Your task to perform on an android device: open app "McDonald's" (install if not already installed) Image 0: 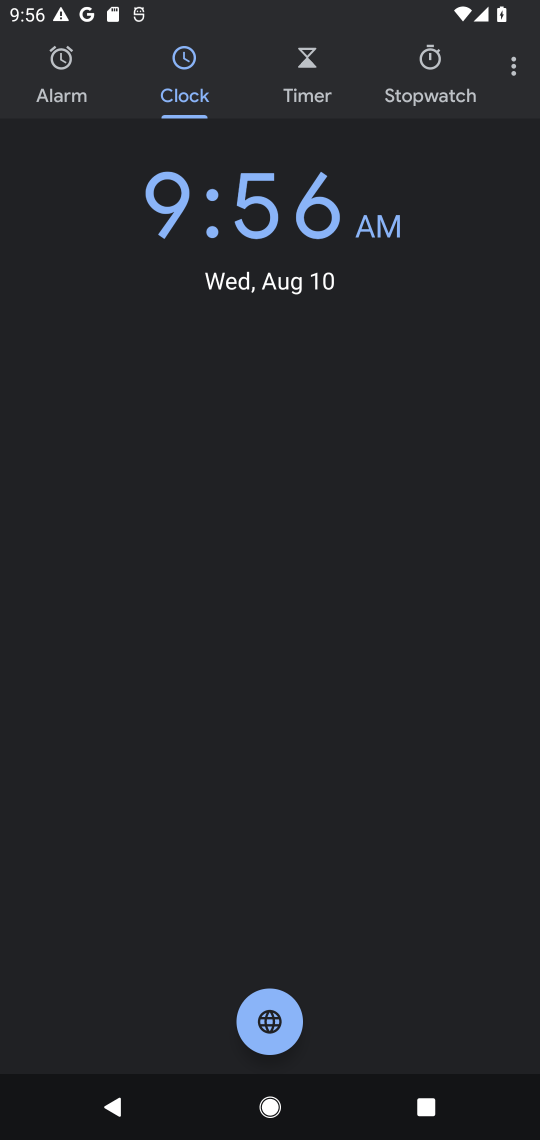
Step 0: press home button
Your task to perform on an android device: open app "McDonald's" (install if not already installed) Image 1: 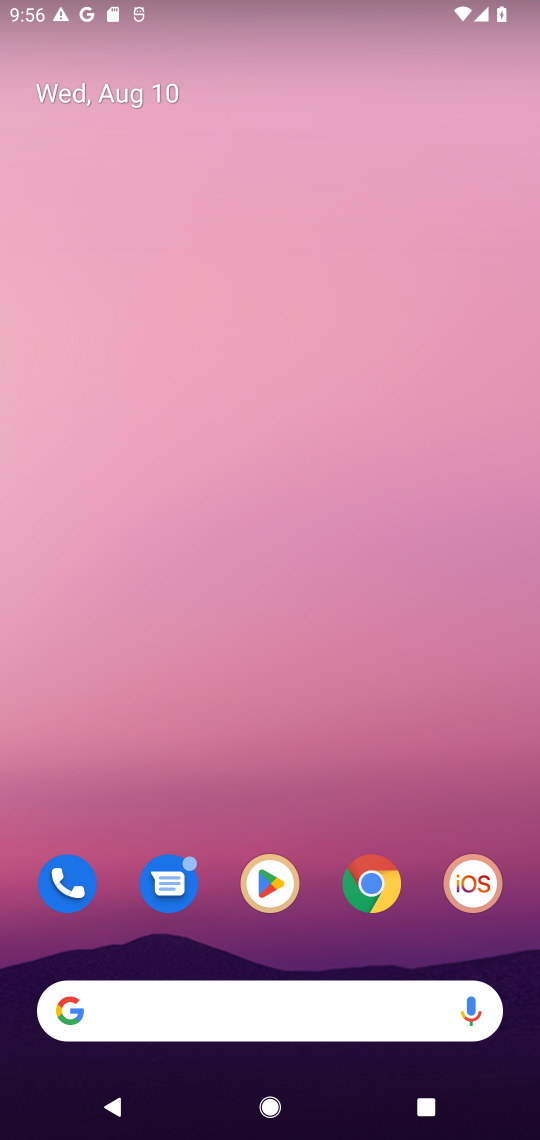
Step 1: drag from (444, 601) to (448, 57)
Your task to perform on an android device: open app "McDonald's" (install if not already installed) Image 2: 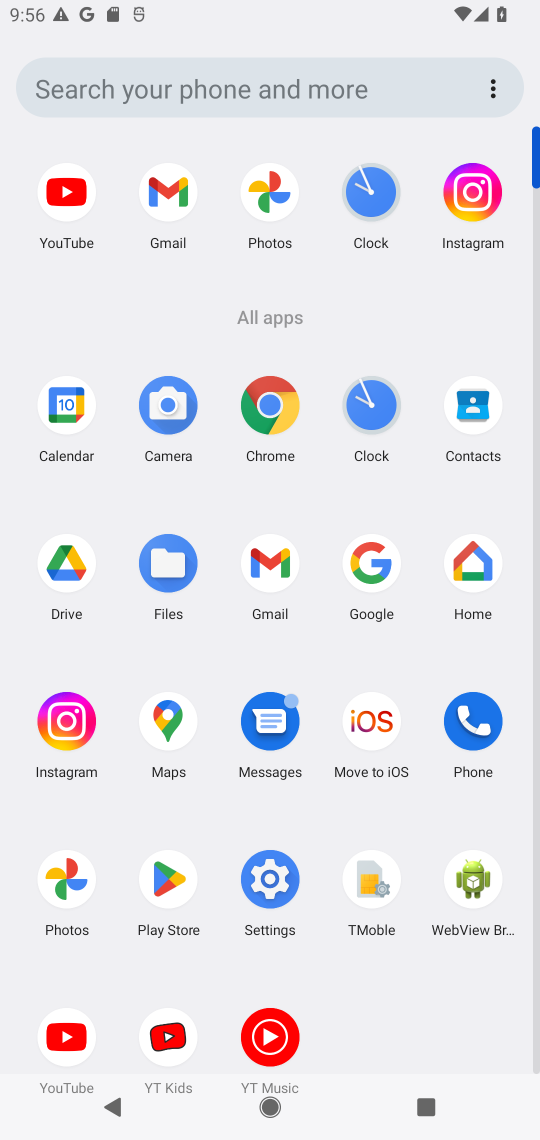
Step 2: click (161, 880)
Your task to perform on an android device: open app "McDonald's" (install if not already installed) Image 3: 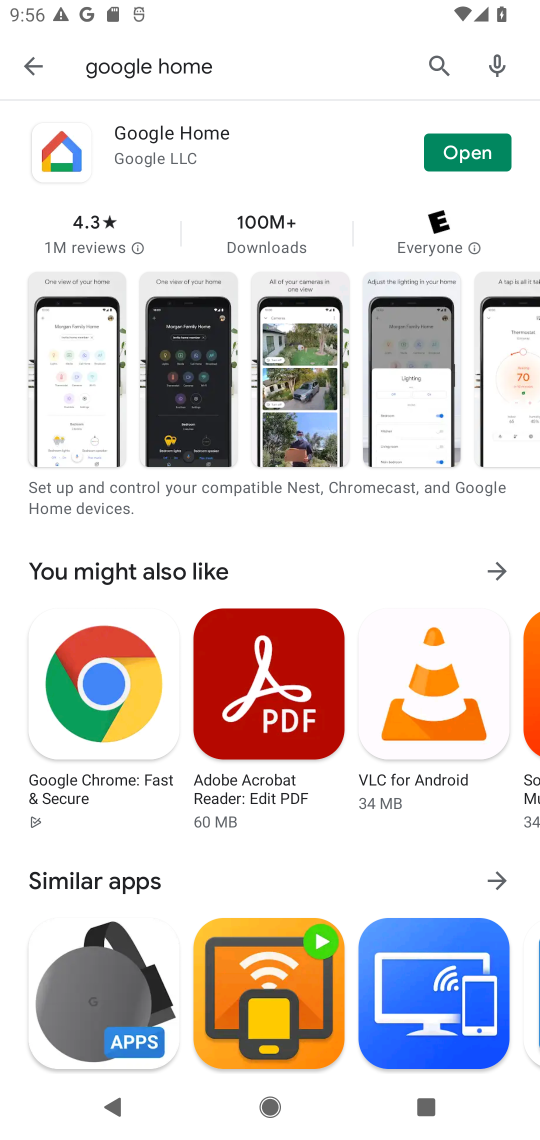
Step 3: click (436, 60)
Your task to perform on an android device: open app "McDonald's" (install if not already installed) Image 4: 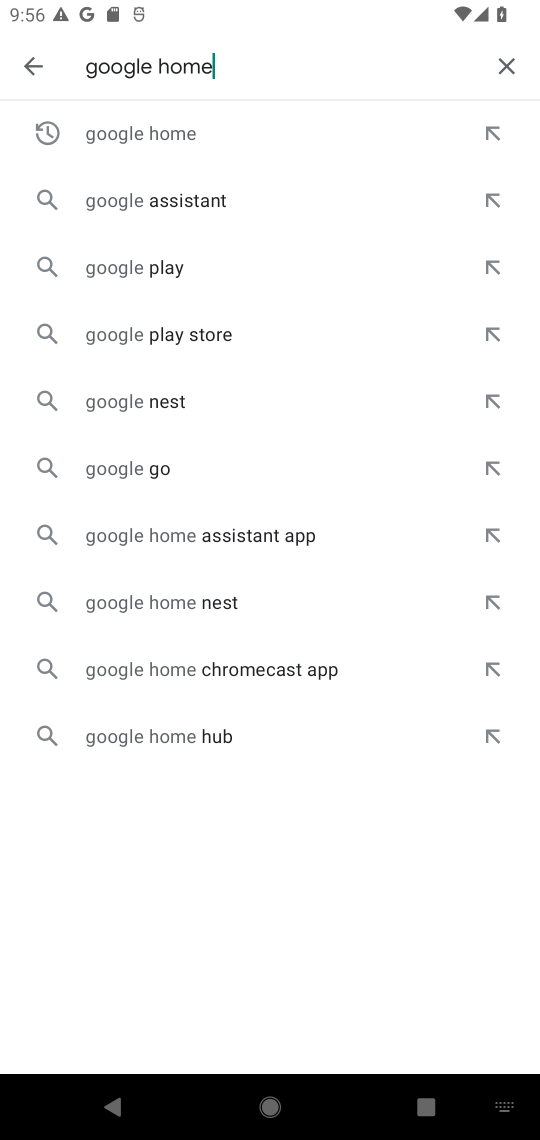
Step 4: click (512, 55)
Your task to perform on an android device: open app "McDonald's" (install if not already installed) Image 5: 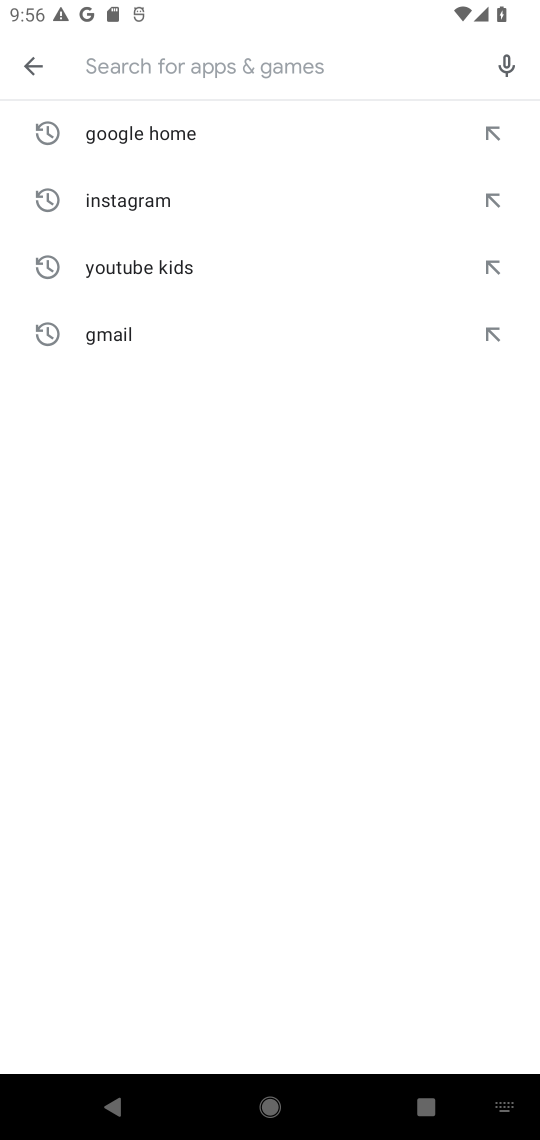
Step 5: type "mcdonalds"
Your task to perform on an android device: open app "McDonald's" (install if not already installed) Image 6: 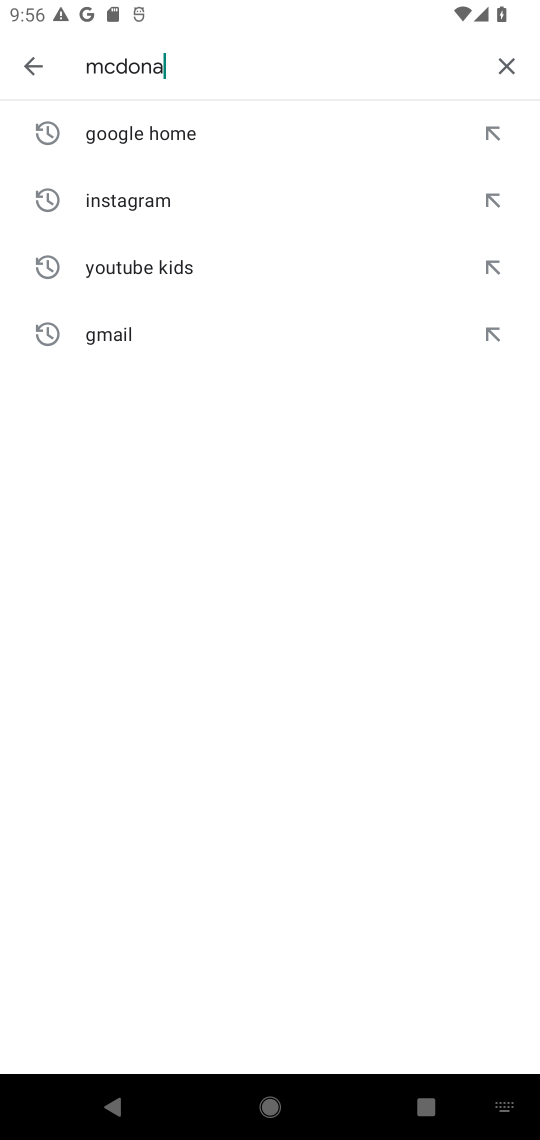
Step 6: press enter
Your task to perform on an android device: open app "McDonald's" (install if not already installed) Image 7: 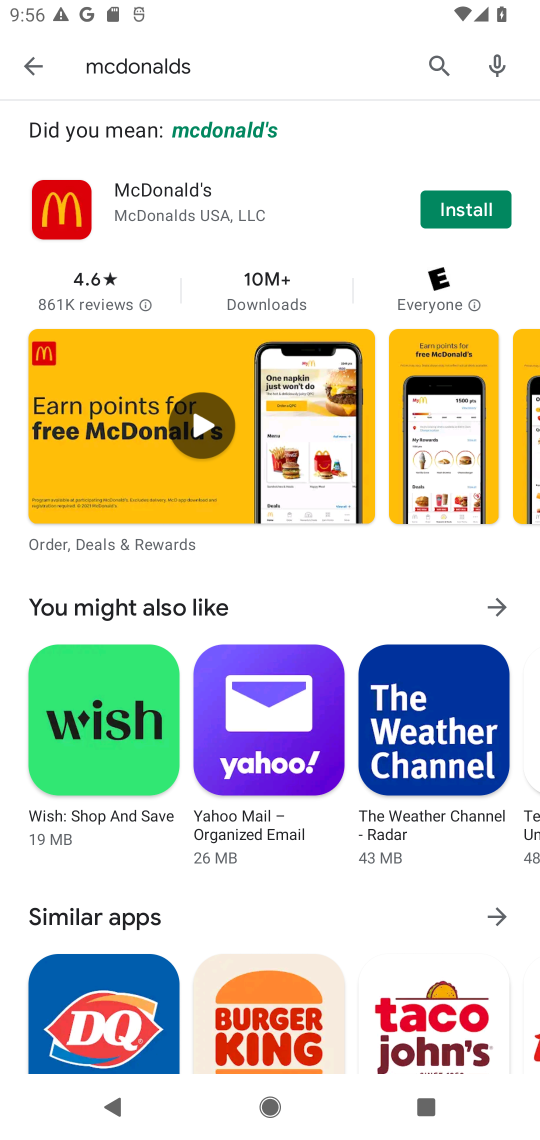
Step 7: click (475, 203)
Your task to perform on an android device: open app "McDonald's" (install if not already installed) Image 8: 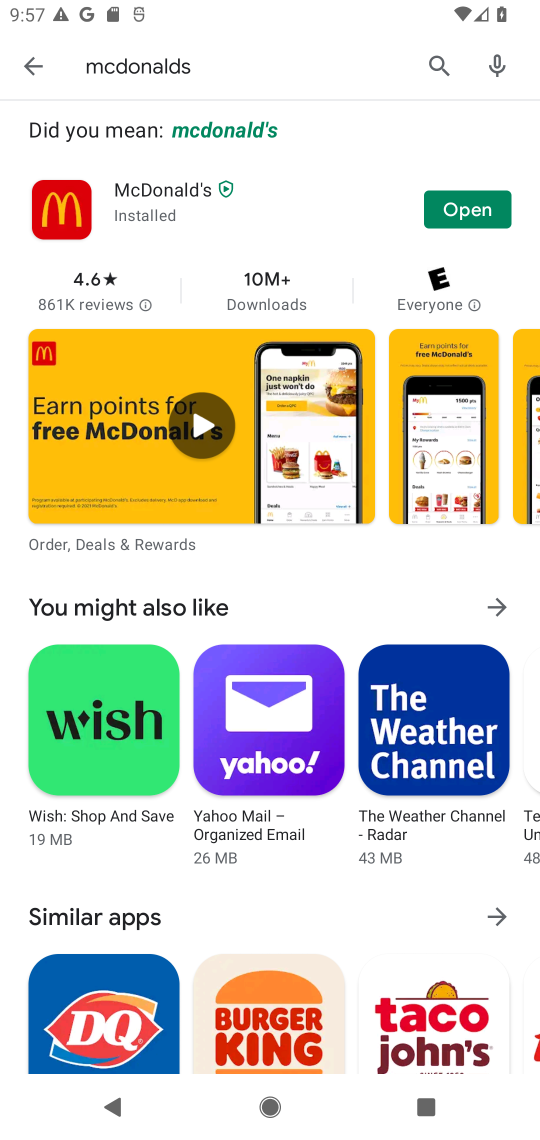
Step 8: click (446, 209)
Your task to perform on an android device: open app "McDonald's" (install if not already installed) Image 9: 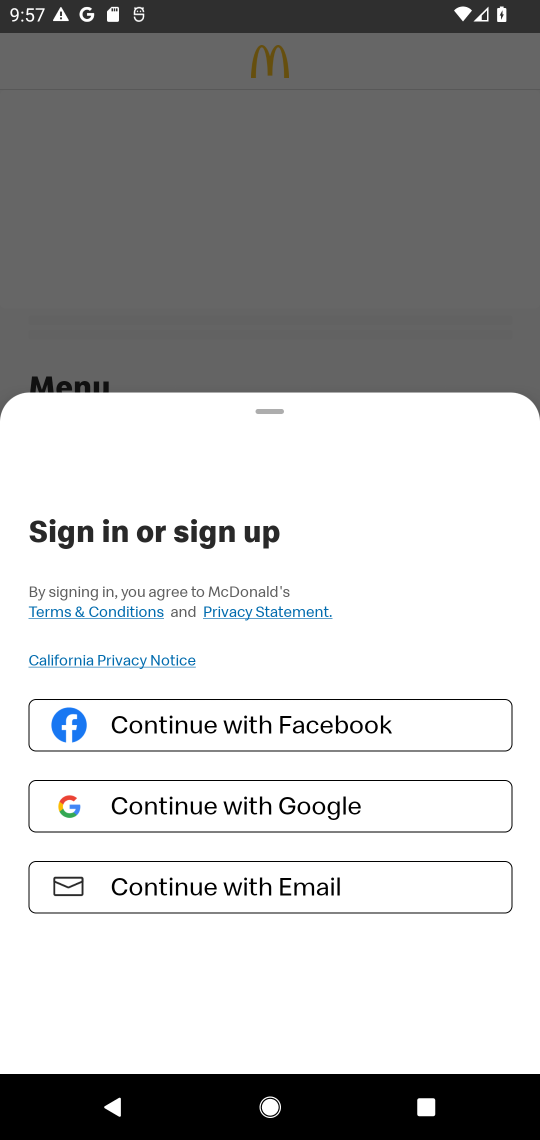
Step 9: task complete